Your task to perform on an android device: change notifications settings Image 0: 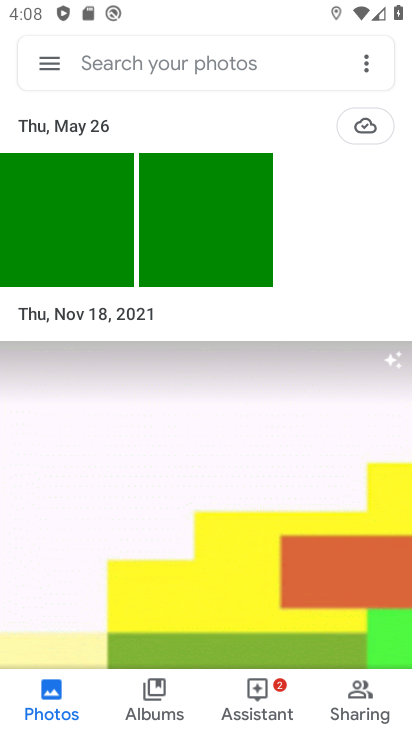
Step 0: press back button
Your task to perform on an android device: change notifications settings Image 1: 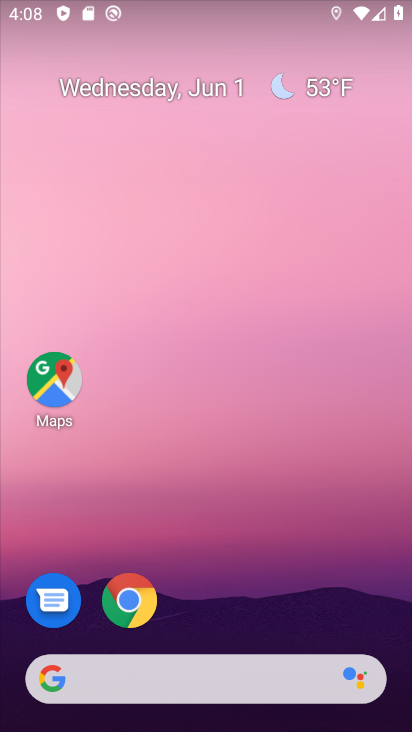
Step 1: drag from (205, 619) to (82, 117)
Your task to perform on an android device: change notifications settings Image 2: 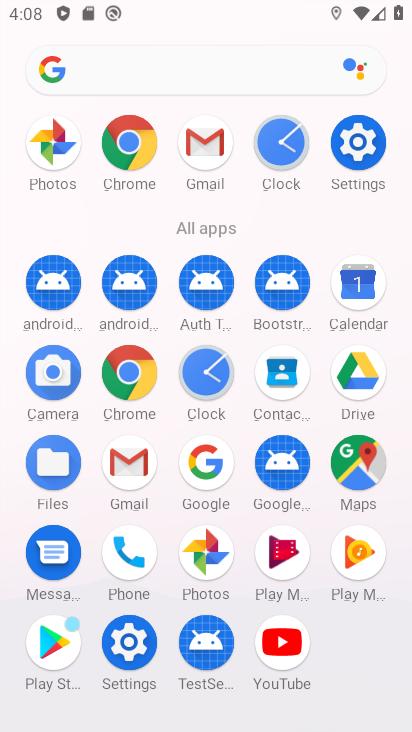
Step 2: drag from (181, 355) to (137, 30)
Your task to perform on an android device: change notifications settings Image 3: 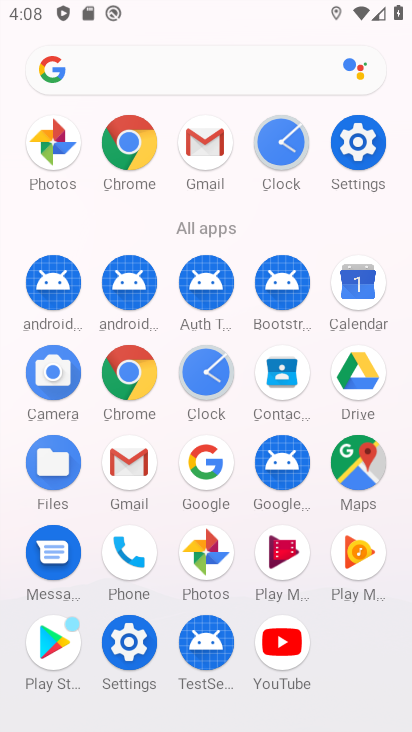
Step 3: click (357, 139)
Your task to perform on an android device: change notifications settings Image 4: 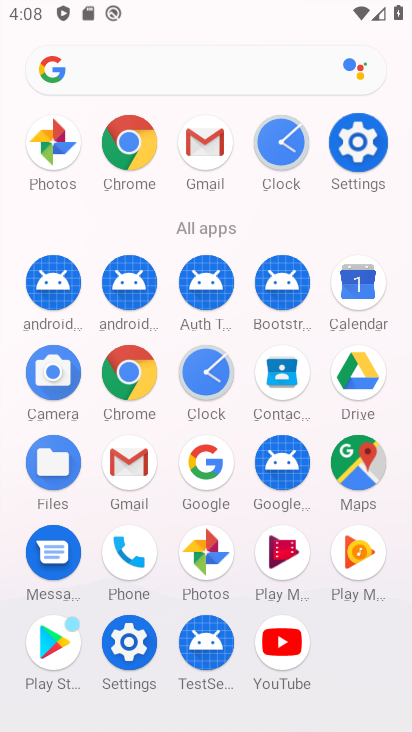
Step 4: click (357, 139)
Your task to perform on an android device: change notifications settings Image 5: 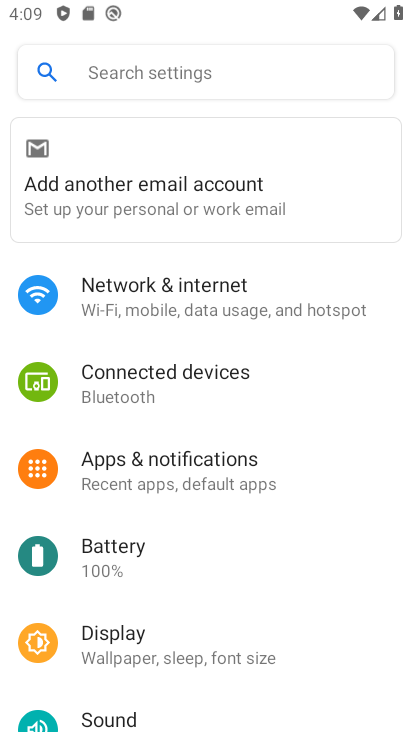
Step 5: click (122, 481)
Your task to perform on an android device: change notifications settings Image 6: 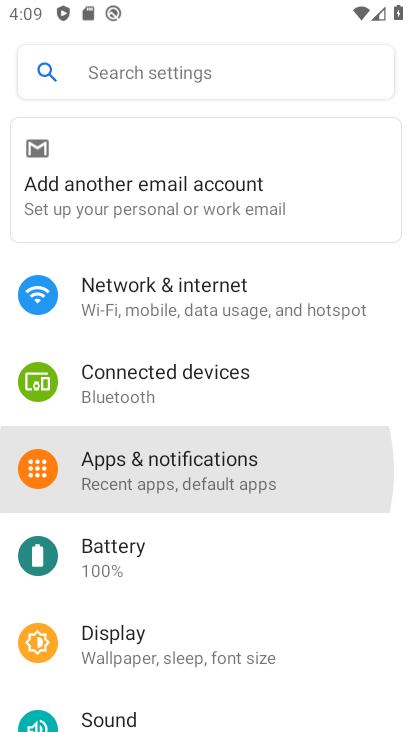
Step 6: click (122, 481)
Your task to perform on an android device: change notifications settings Image 7: 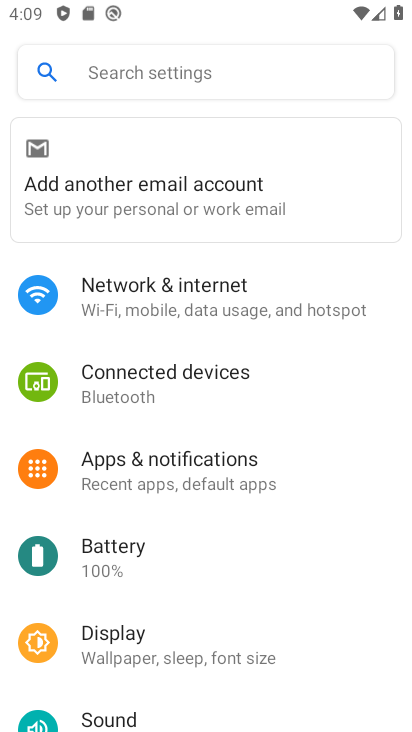
Step 7: click (123, 481)
Your task to perform on an android device: change notifications settings Image 8: 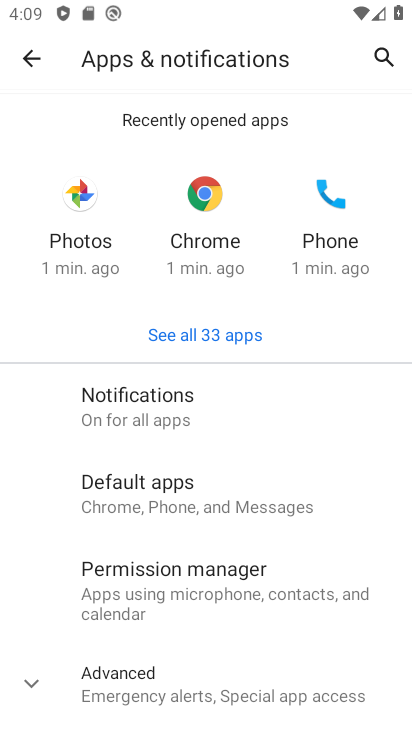
Step 8: click (128, 420)
Your task to perform on an android device: change notifications settings Image 9: 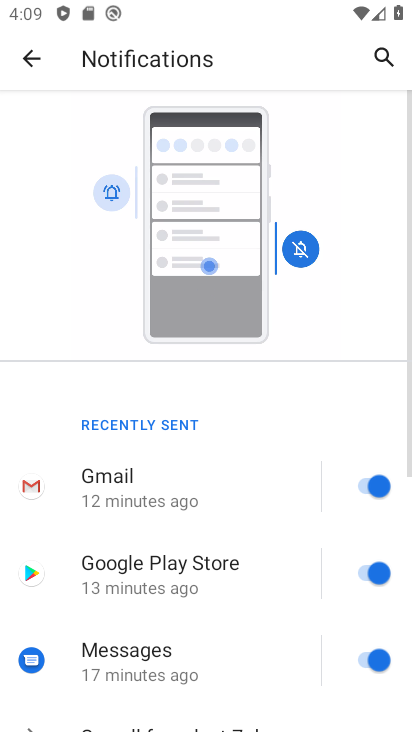
Step 9: drag from (207, 352) to (202, 210)
Your task to perform on an android device: change notifications settings Image 10: 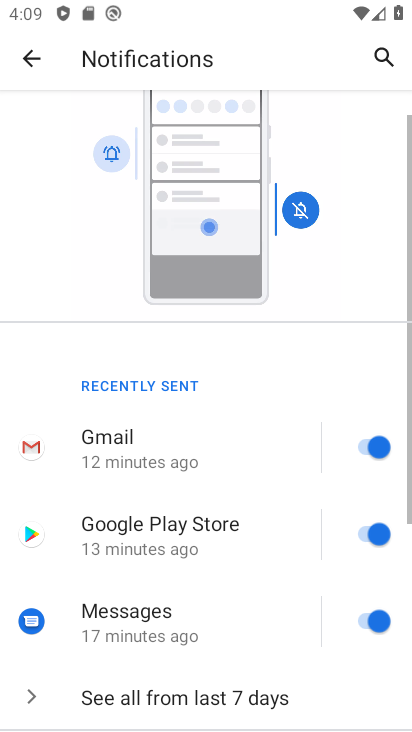
Step 10: drag from (227, 449) to (208, 178)
Your task to perform on an android device: change notifications settings Image 11: 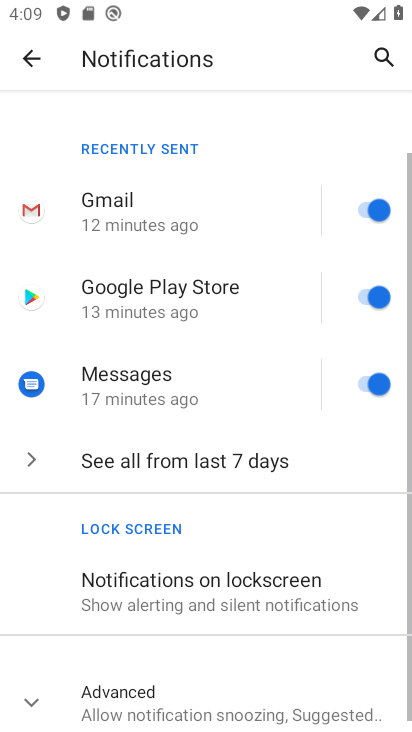
Step 11: drag from (210, 482) to (152, 138)
Your task to perform on an android device: change notifications settings Image 12: 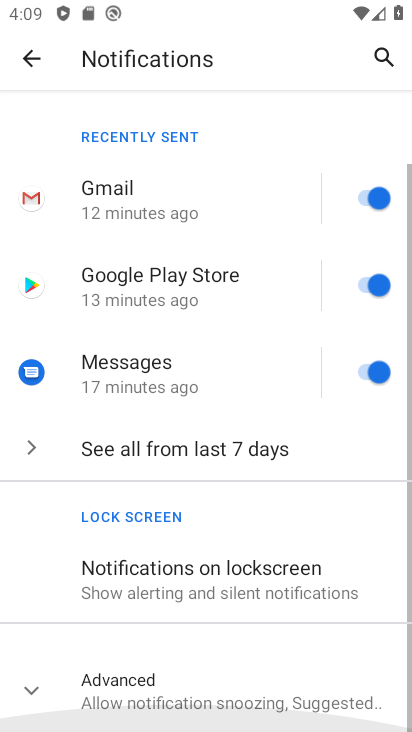
Step 12: drag from (171, 480) to (159, 140)
Your task to perform on an android device: change notifications settings Image 13: 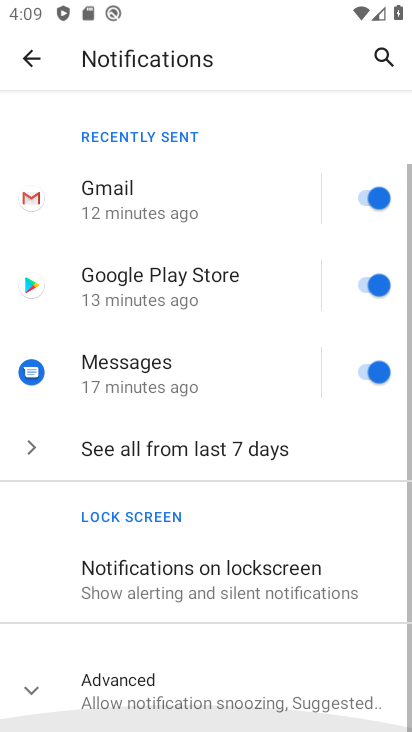
Step 13: drag from (204, 412) to (208, 88)
Your task to perform on an android device: change notifications settings Image 14: 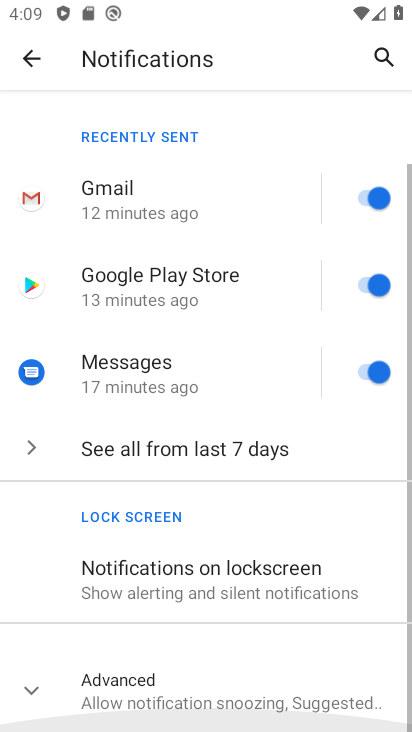
Step 14: drag from (208, 243) to (208, 171)
Your task to perform on an android device: change notifications settings Image 15: 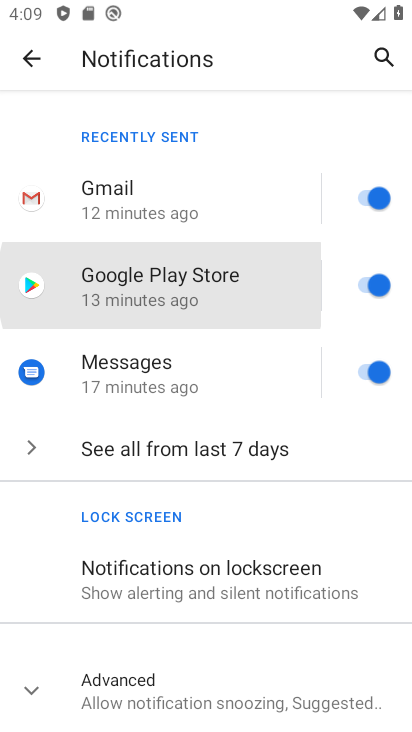
Step 15: drag from (190, 523) to (147, 158)
Your task to perform on an android device: change notifications settings Image 16: 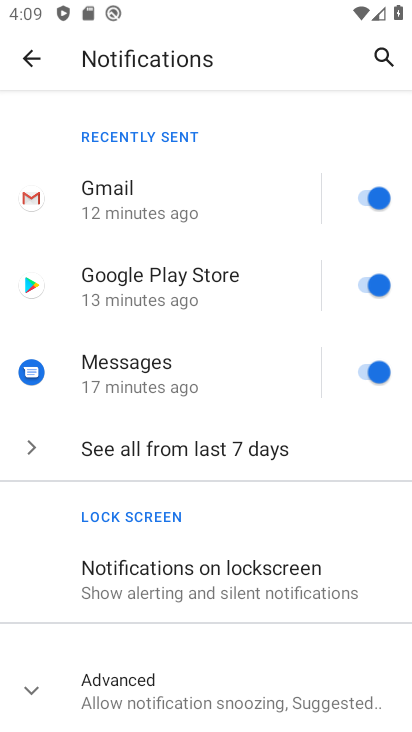
Step 16: click (372, 376)
Your task to perform on an android device: change notifications settings Image 17: 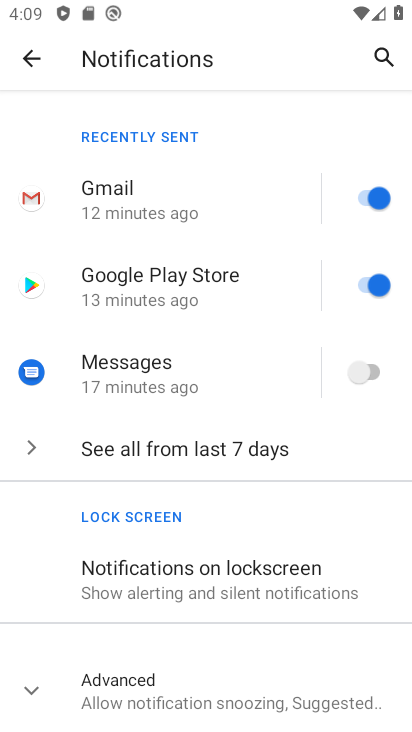
Step 17: click (379, 283)
Your task to perform on an android device: change notifications settings Image 18: 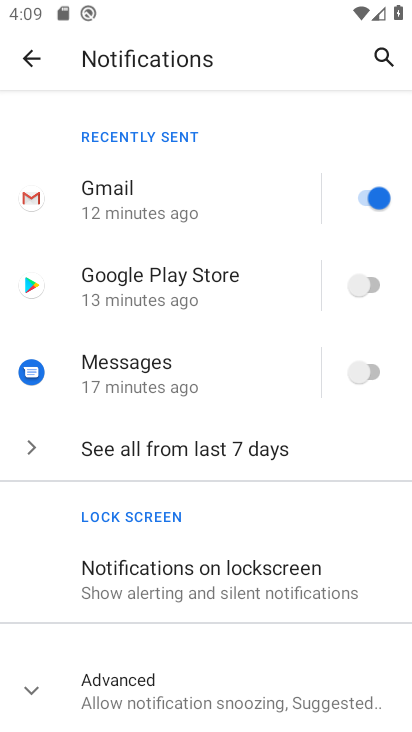
Step 18: click (374, 194)
Your task to perform on an android device: change notifications settings Image 19: 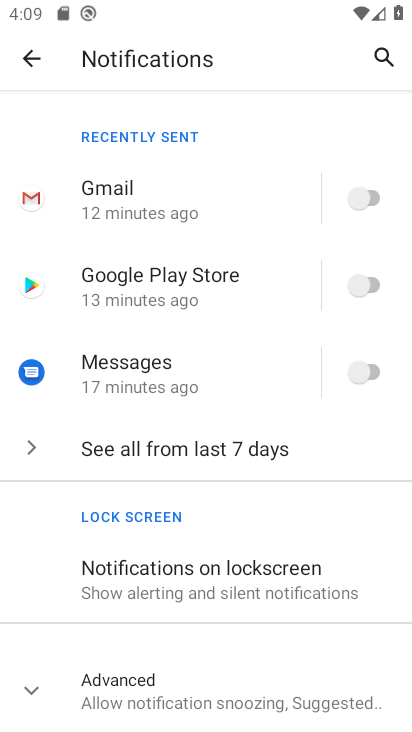
Step 19: task complete